Your task to perform on an android device: Open Wikipedia Image 0: 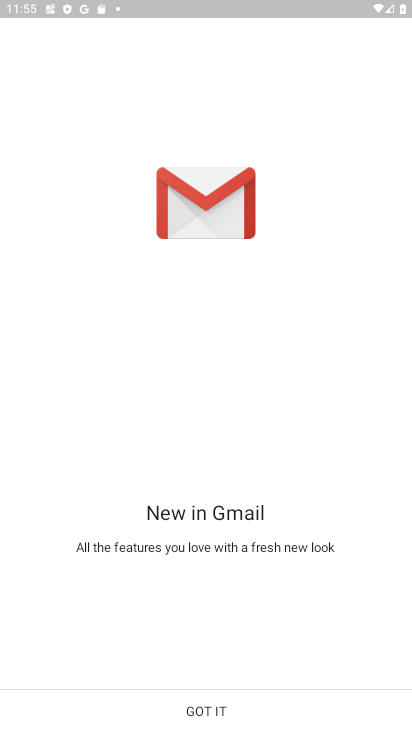
Step 0: press home button
Your task to perform on an android device: Open Wikipedia Image 1: 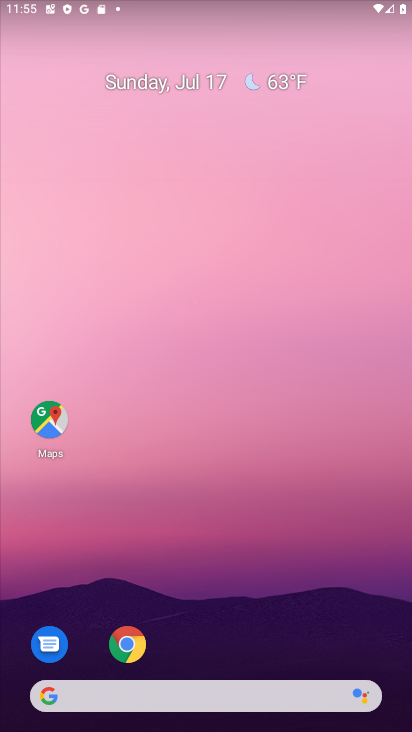
Step 1: click (132, 649)
Your task to perform on an android device: Open Wikipedia Image 2: 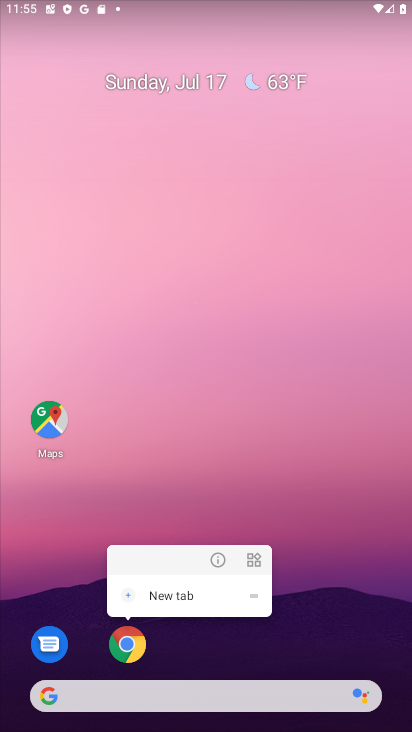
Step 2: click (132, 649)
Your task to perform on an android device: Open Wikipedia Image 3: 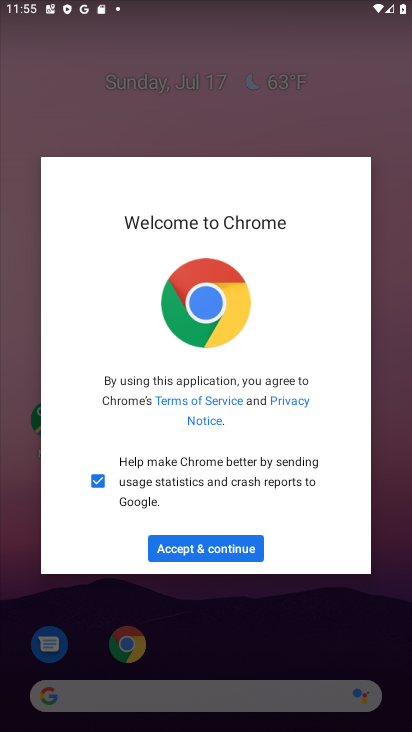
Step 3: click (193, 546)
Your task to perform on an android device: Open Wikipedia Image 4: 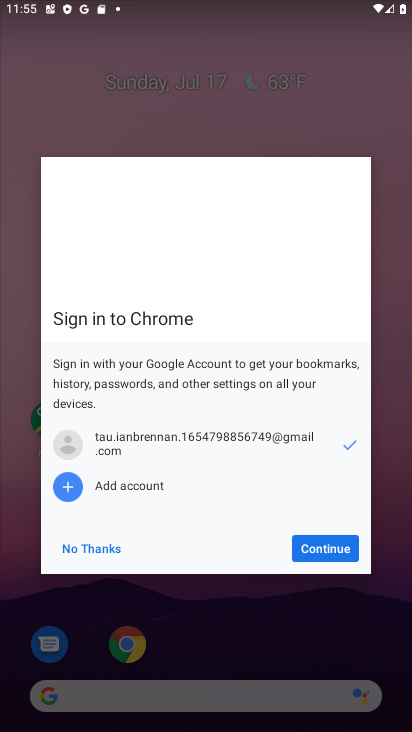
Step 4: click (342, 542)
Your task to perform on an android device: Open Wikipedia Image 5: 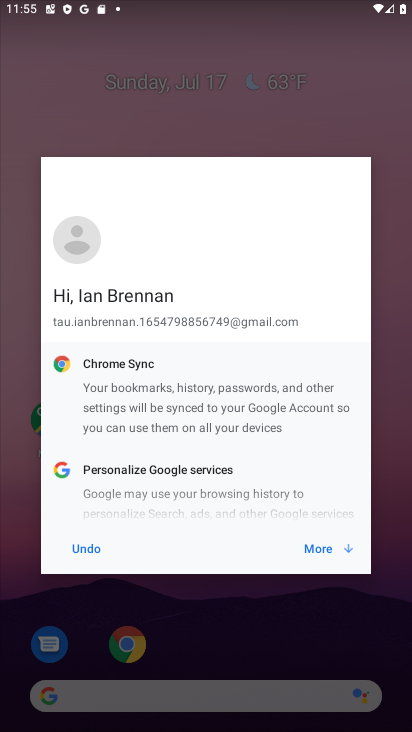
Step 5: click (342, 542)
Your task to perform on an android device: Open Wikipedia Image 6: 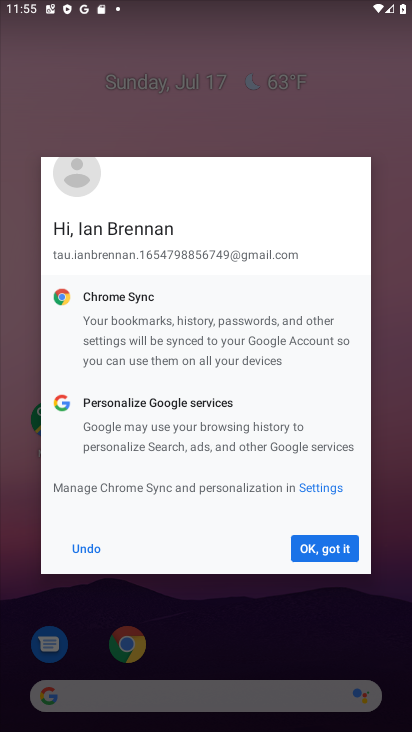
Step 6: click (342, 542)
Your task to perform on an android device: Open Wikipedia Image 7: 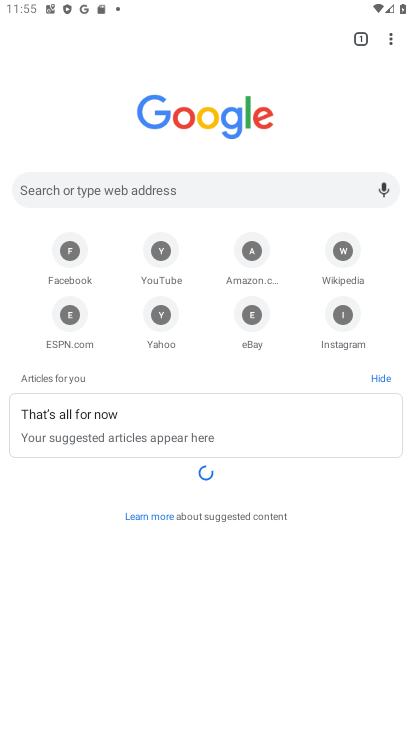
Step 7: click (360, 266)
Your task to perform on an android device: Open Wikipedia Image 8: 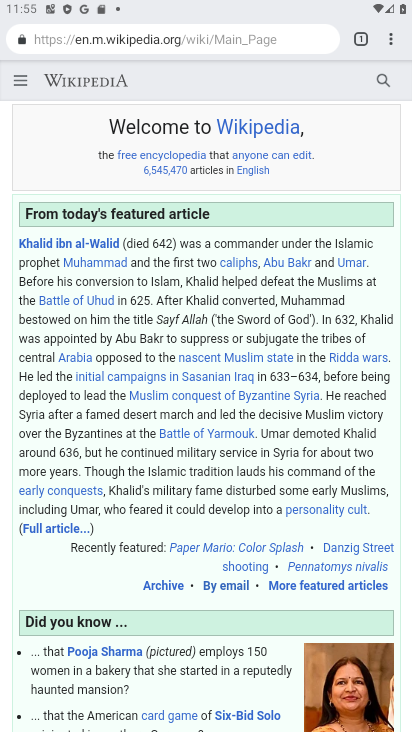
Step 8: task complete